Your task to perform on an android device: Open Google Chrome Image 0: 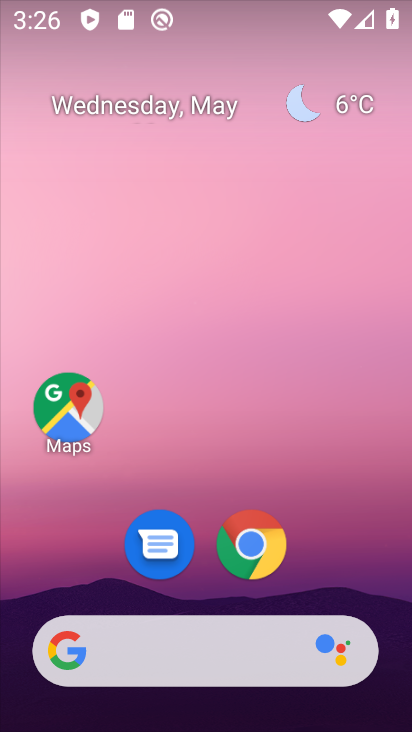
Step 0: click (250, 547)
Your task to perform on an android device: Open Google Chrome Image 1: 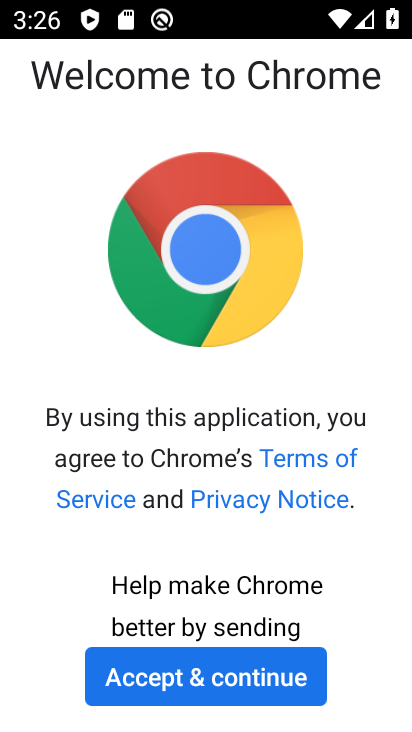
Step 1: click (174, 679)
Your task to perform on an android device: Open Google Chrome Image 2: 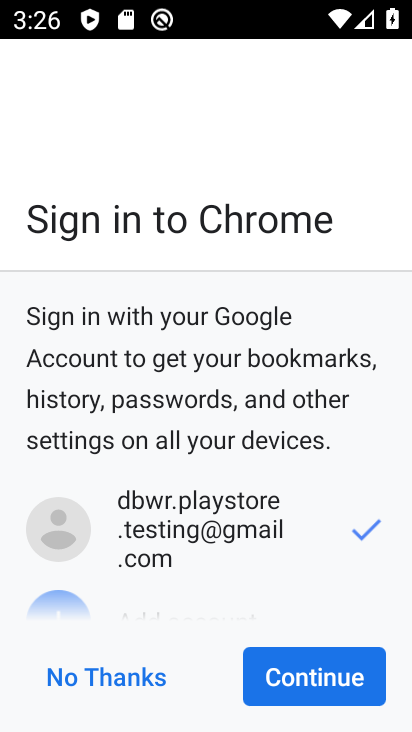
Step 2: click (125, 677)
Your task to perform on an android device: Open Google Chrome Image 3: 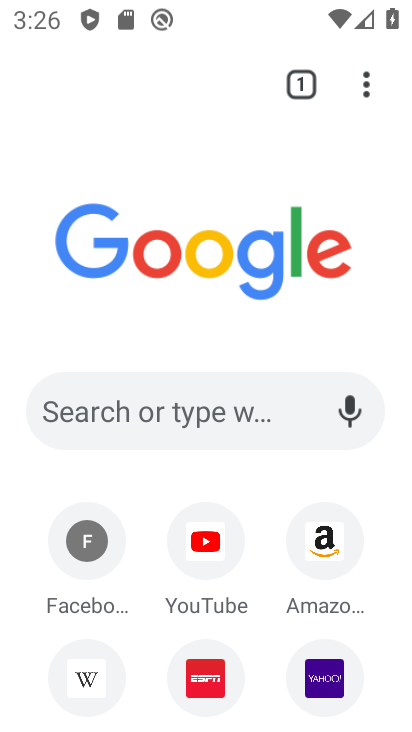
Step 3: task complete